Your task to perform on an android device: turn off javascript in the chrome app Image 0: 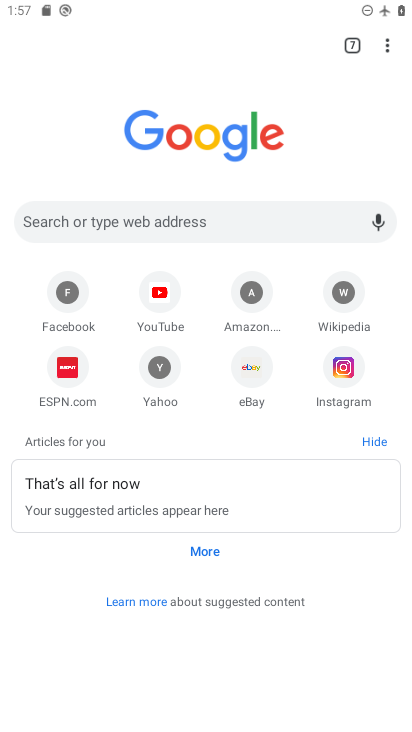
Step 0: drag from (389, 47) to (228, 372)
Your task to perform on an android device: turn off javascript in the chrome app Image 1: 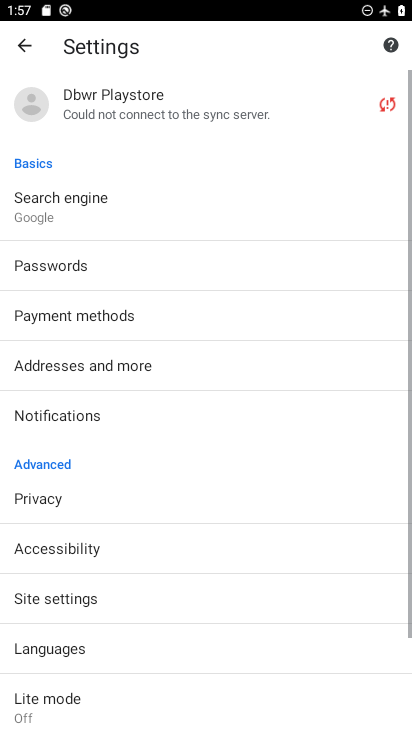
Step 1: click (76, 598)
Your task to perform on an android device: turn off javascript in the chrome app Image 2: 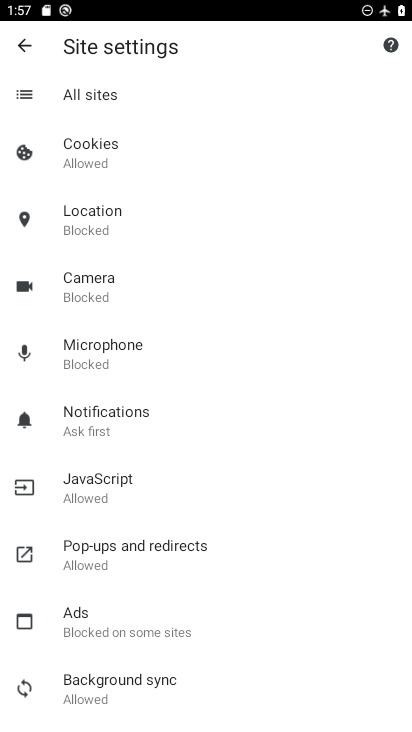
Step 2: click (87, 479)
Your task to perform on an android device: turn off javascript in the chrome app Image 3: 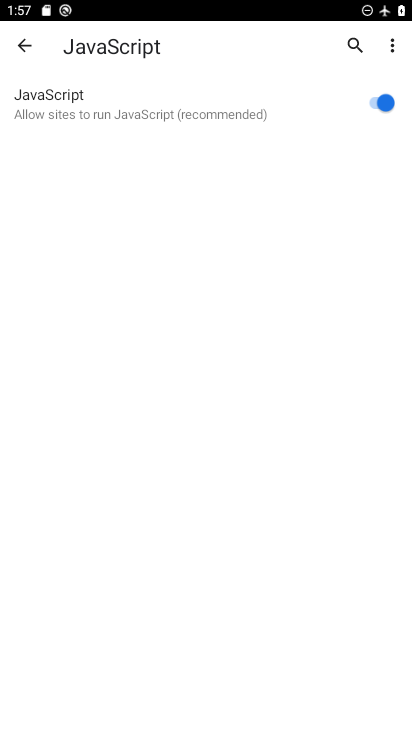
Step 3: click (367, 92)
Your task to perform on an android device: turn off javascript in the chrome app Image 4: 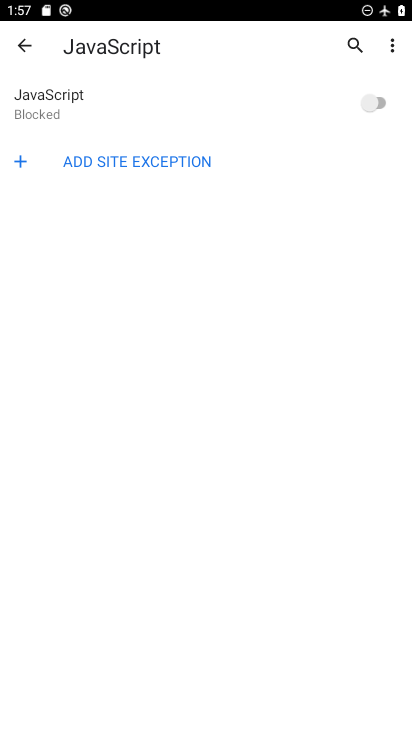
Step 4: task complete